Your task to perform on an android device: Find coffee shops on Maps Image 0: 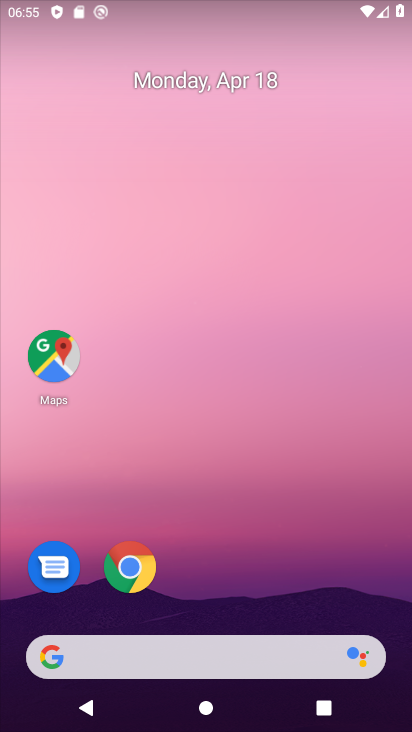
Step 0: click (254, 69)
Your task to perform on an android device: Find coffee shops on Maps Image 1: 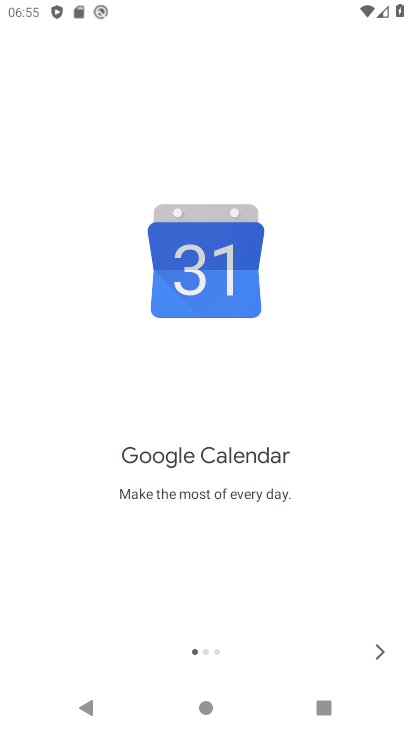
Step 1: press home button
Your task to perform on an android device: Find coffee shops on Maps Image 2: 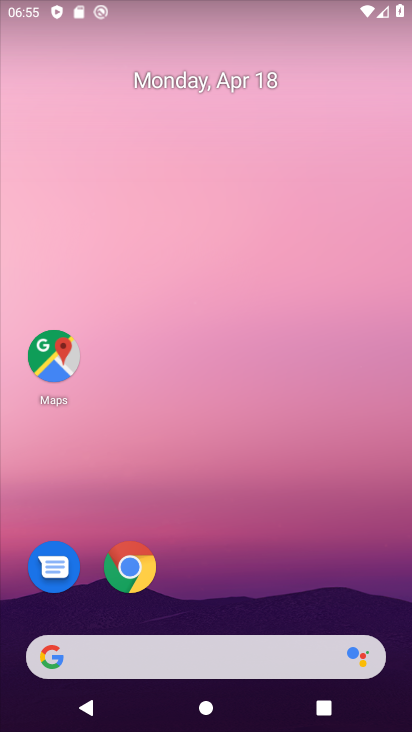
Step 2: drag from (282, 425) to (229, 141)
Your task to perform on an android device: Find coffee shops on Maps Image 3: 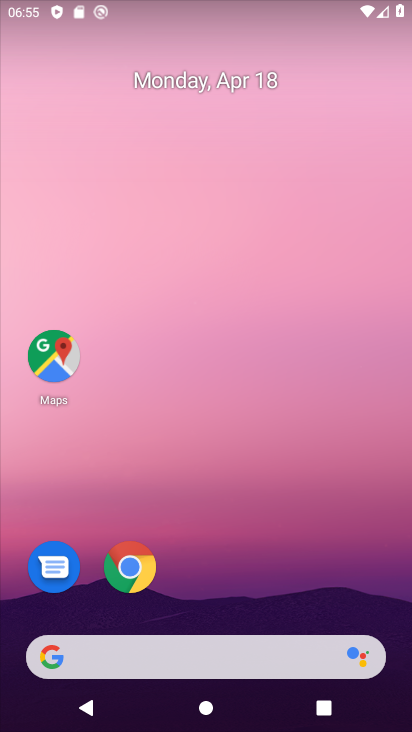
Step 3: drag from (270, 396) to (288, 6)
Your task to perform on an android device: Find coffee shops on Maps Image 4: 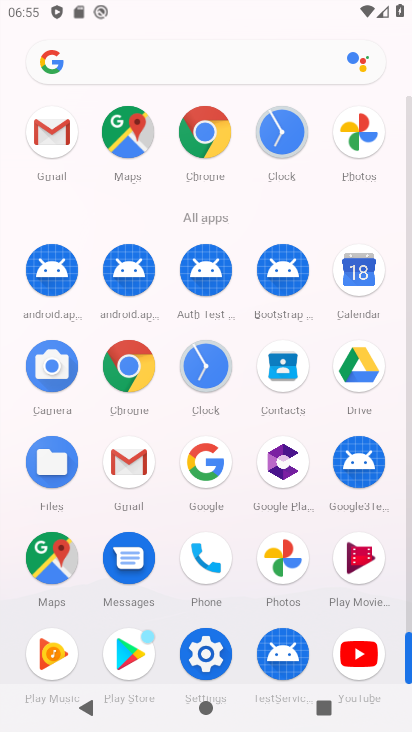
Step 4: click (120, 128)
Your task to perform on an android device: Find coffee shops on Maps Image 5: 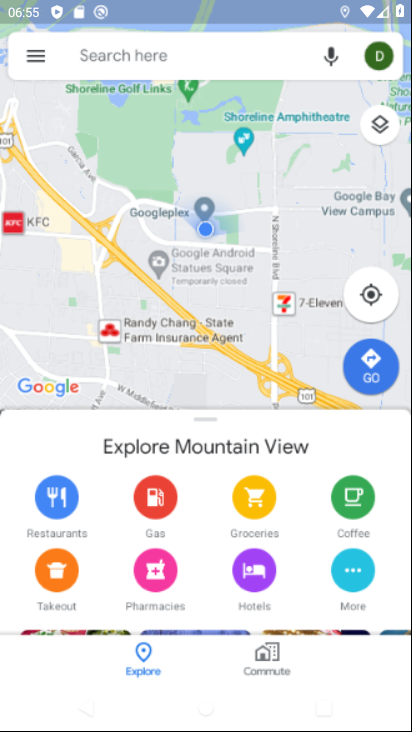
Step 5: click (134, 61)
Your task to perform on an android device: Find coffee shops on Maps Image 6: 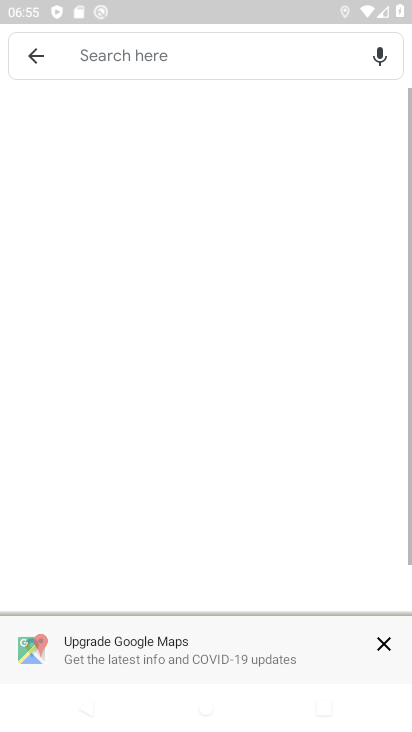
Step 6: click (123, 57)
Your task to perform on an android device: Find coffee shops on Maps Image 7: 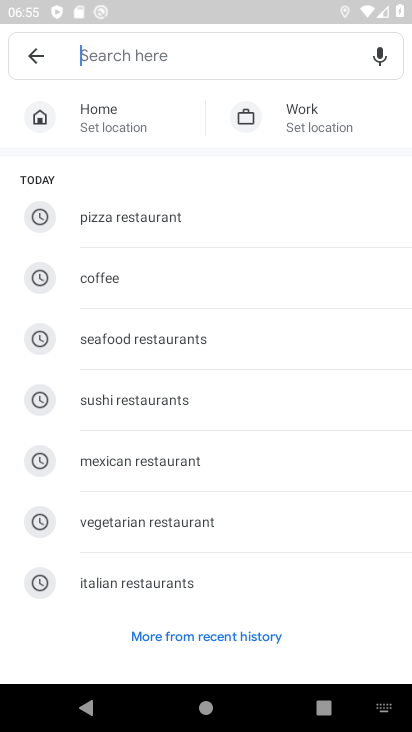
Step 7: click (123, 57)
Your task to perform on an android device: Find coffee shops on Maps Image 8: 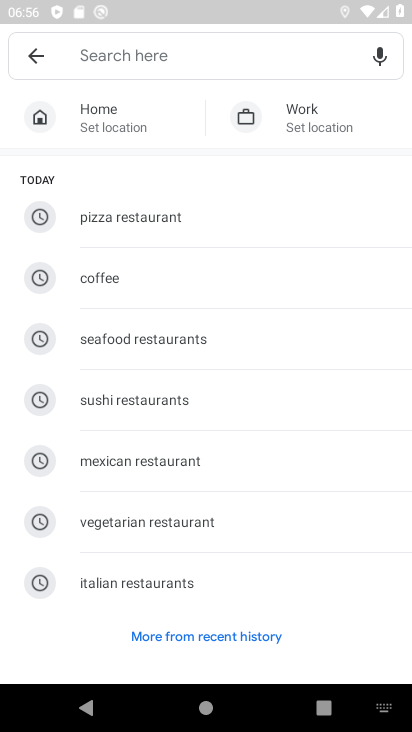
Step 8: type "coffee shops "
Your task to perform on an android device: Find coffee shops on Maps Image 9: 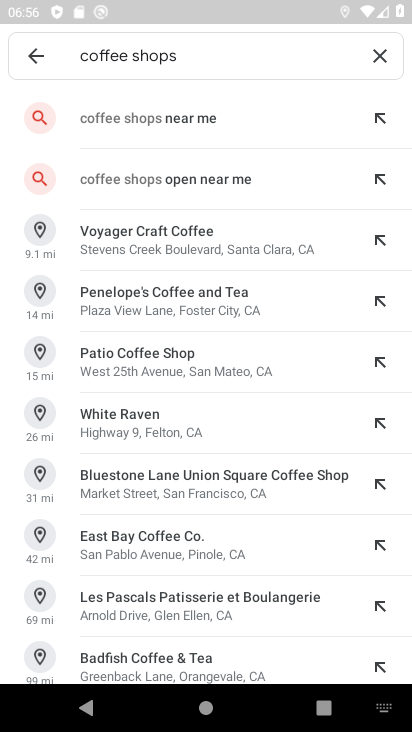
Step 9: click (95, 113)
Your task to perform on an android device: Find coffee shops on Maps Image 10: 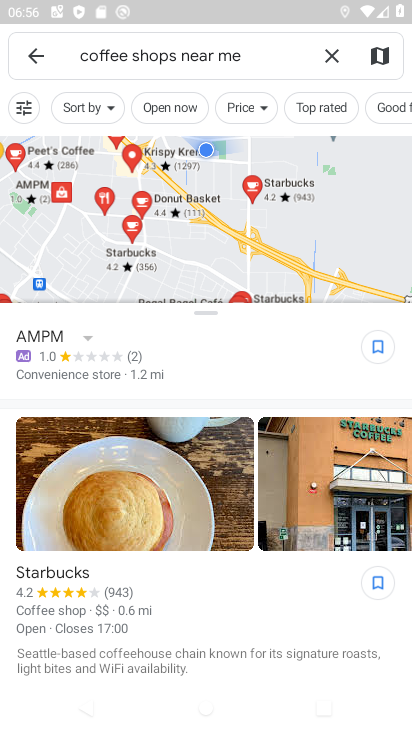
Step 10: task complete